Your task to perform on an android device: Search for vegetarian restaurants on Maps Image 0: 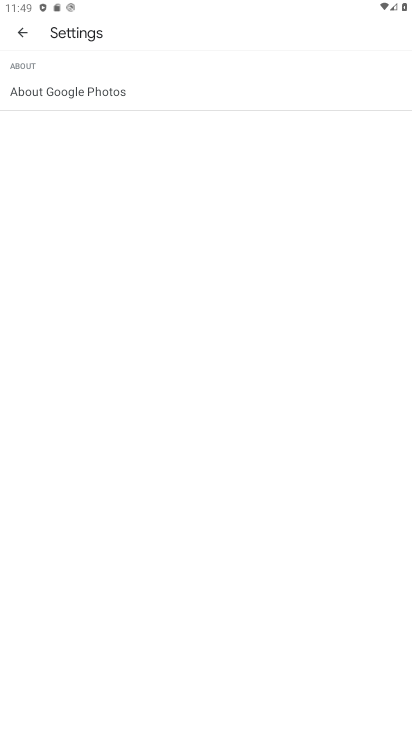
Step 0: task complete